Your task to perform on an android device: stop showing notifications on the lock screen Image 0: 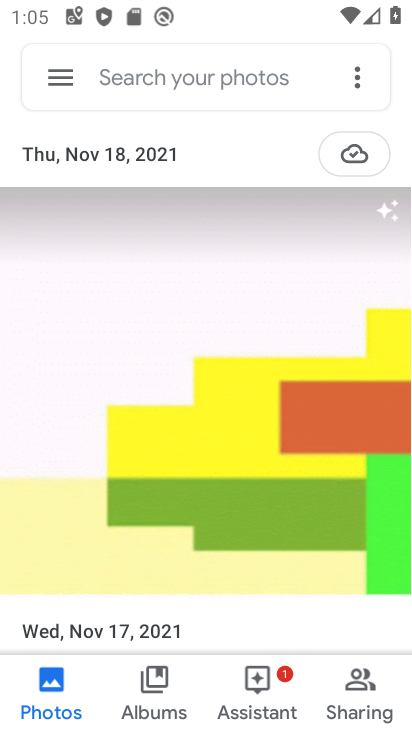
Step 0: press home button
Your task to perform on an android device: stop showing notifications on the lock screen Image 1: 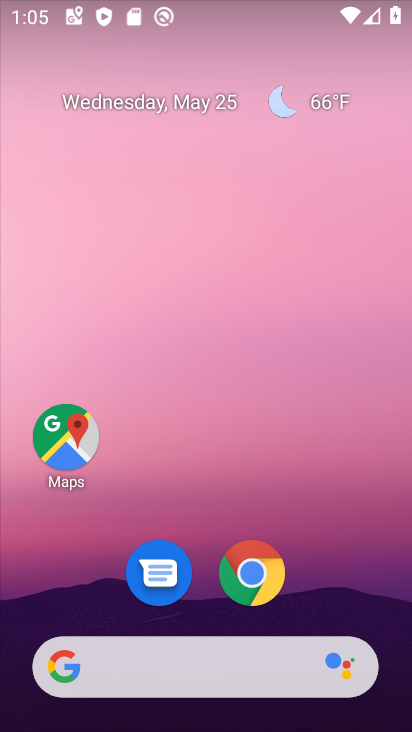
Step 1: drag from (372, 605) to (325, 35)
Your task to perform on an android device: stop showing notifications on the lock screen Image 2: 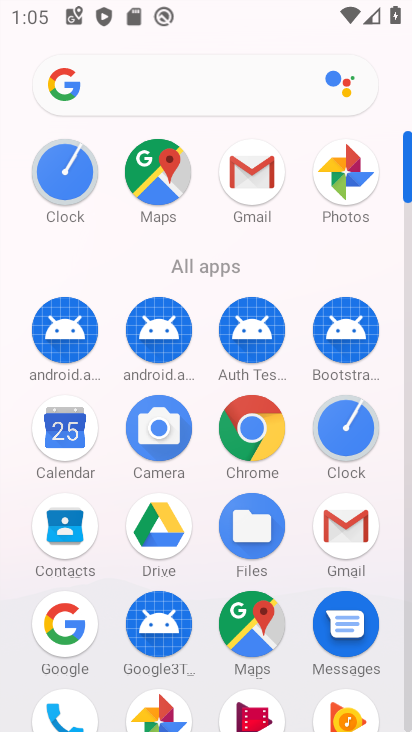
Step 2: click (410, 693)
Your task to perform on an android device: stop showing notifications on the lock screen Image 3: 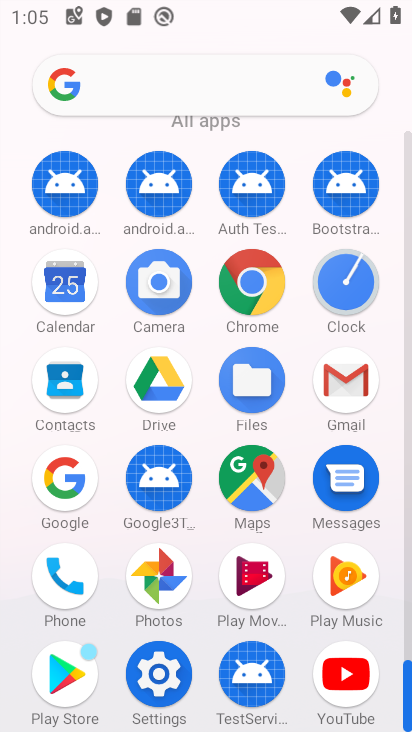
Step 3: click (160, 674)
Your task to perform on an android device: stop showing notifications on the lock screen Image 4: 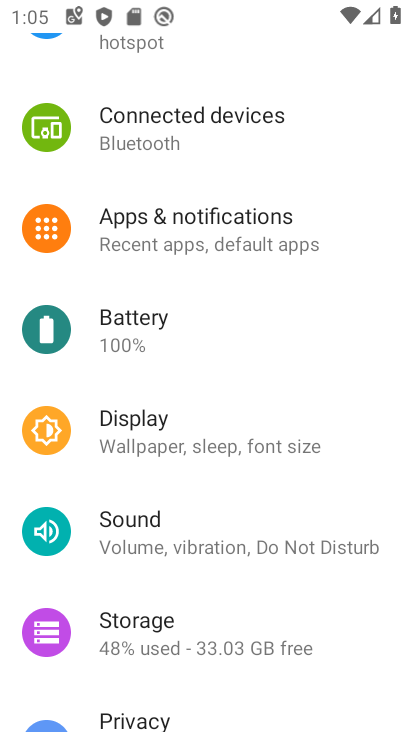
Step 4: drag from (274, 649) to (259, 295)
Your task to perform on an android device: stop showing notifications on the lock screen Image 5: 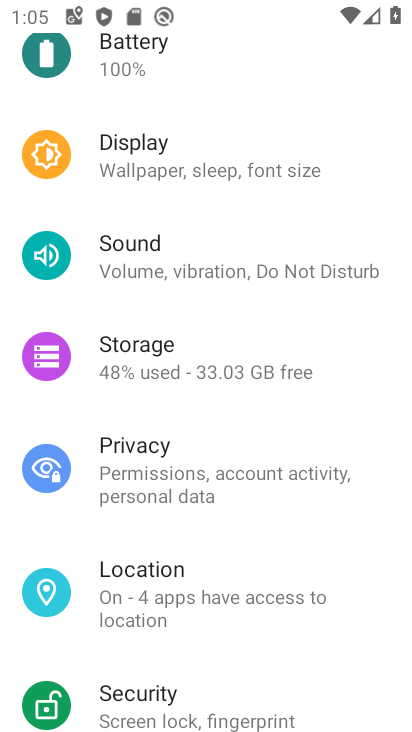
Step 5: drag from (290, 207) to (324, 591)
Your task to perform on an android device: stop showing notifications on the lock screen Image 6: 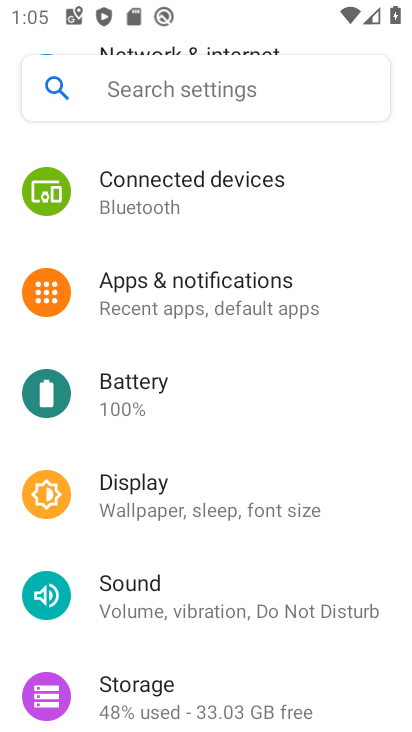
Step 6: click (179, 288)
Your task to perform on an android device: stop showing notifications on the lock screen Image 7: 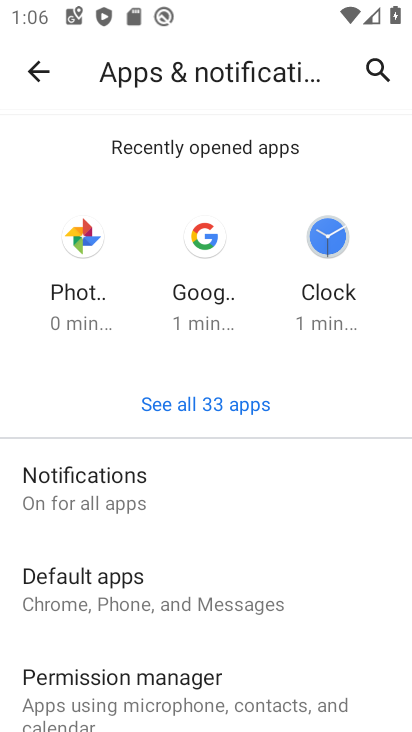
Step 7: click (69, 492)
Your task to perform on an android device: stop showing notifications on the lock screen Image 8: 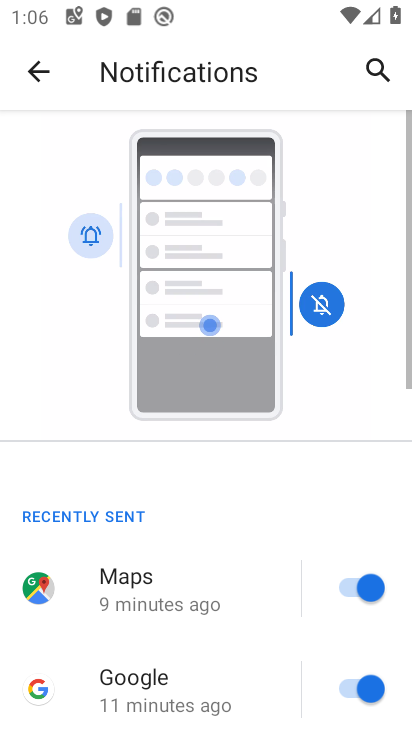
Step 8: drag from (289, 678) to (250, 152)
Your task to perform on an android device: stop showing notifications on the lock screen Image 9: 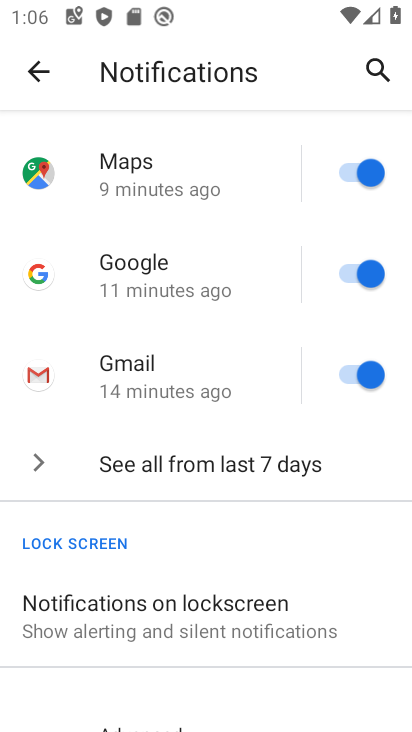
Step 9: click (102, 595)
Your task to perform on an android device: stop showing notifications on the lock screen Image 10: 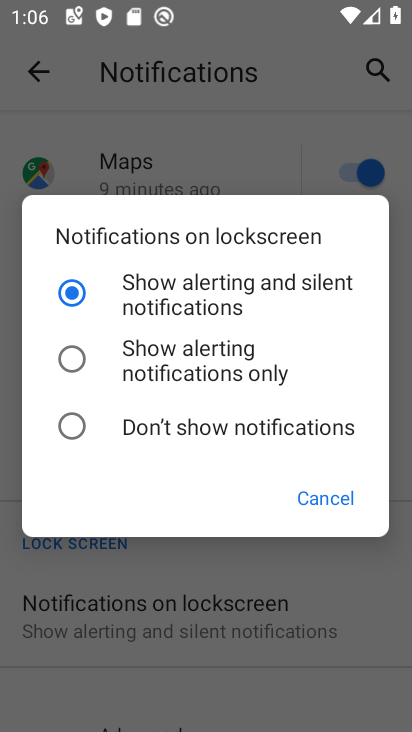
Step 10: click (71, 438)
Your task to perform on an android device: stop showing notifications on the lock screen Image 11: 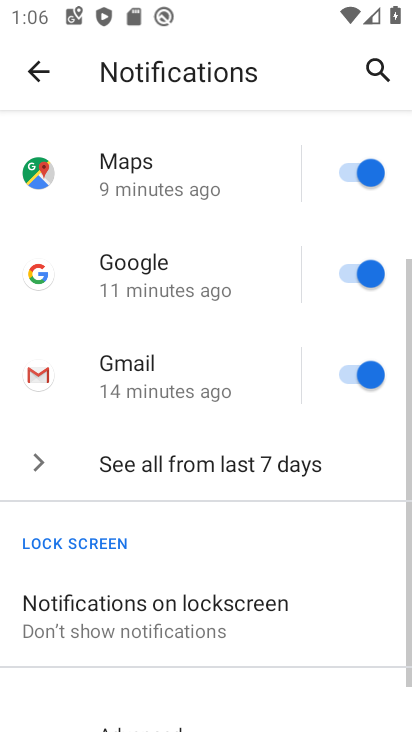
Step 11: task complete